Your task to perform on an android device: Search for seafood restaurants on Google Maps Image 0: 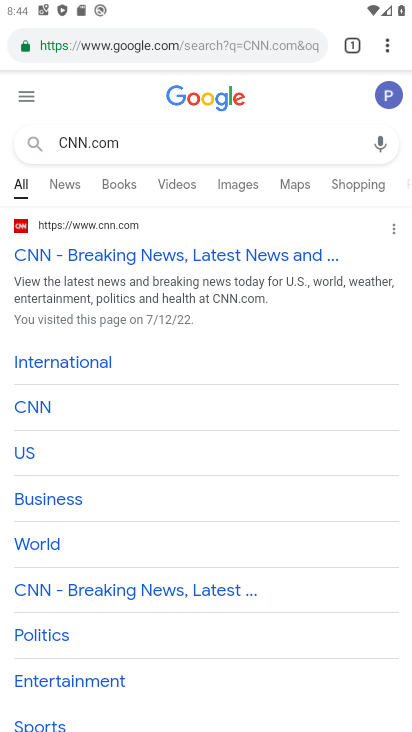
Step 0: press home button
Your task to perform on an android device: Search for seafood restaurants on Google Maps Image 1: 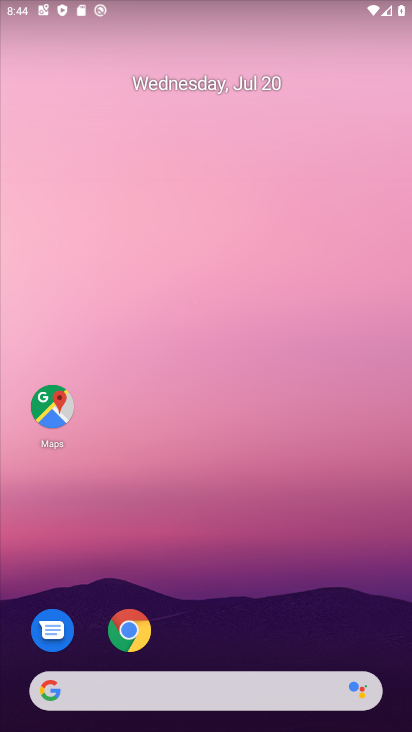
Step 1: click (54, 405)
Your task to perform on an android device: Search for seafood restaurants on Google Maps Image 2: 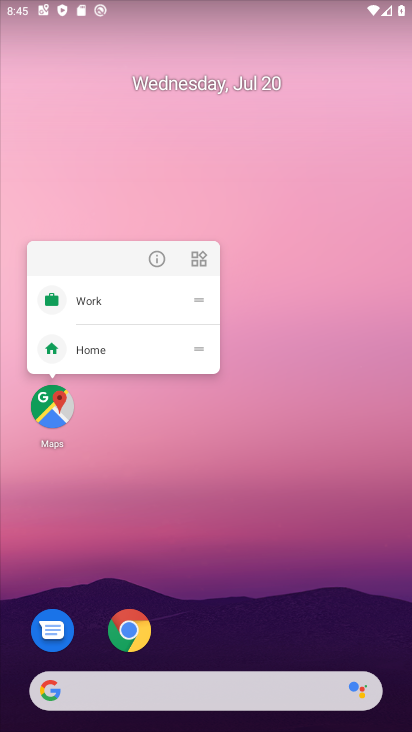
Step 2: click (50, 413)
Your task to perform on an android device: Search for seafood restaurants on Google Maps Image 3: 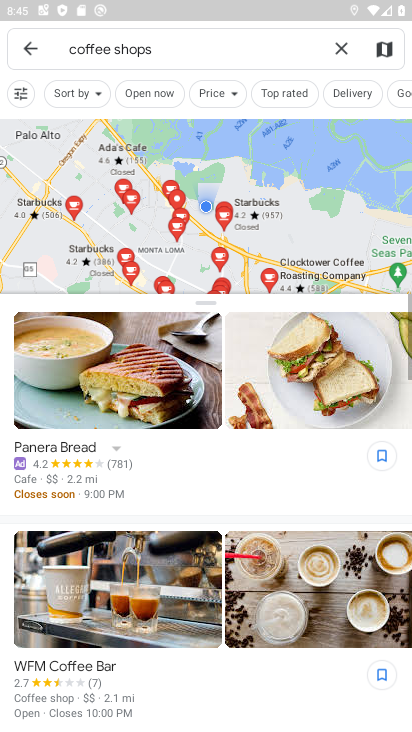
Step 3: click (332, 51)
Your task to perform on an android device: Search for seafood restaurants on Google Maps Image 4: 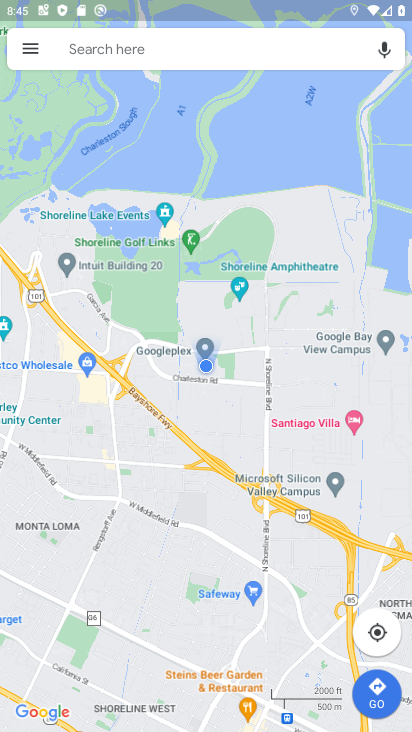
Step 4: click (106, 50)
Your task to perform on an android device: Search for seafood restaurants on Google Maps Image 5: 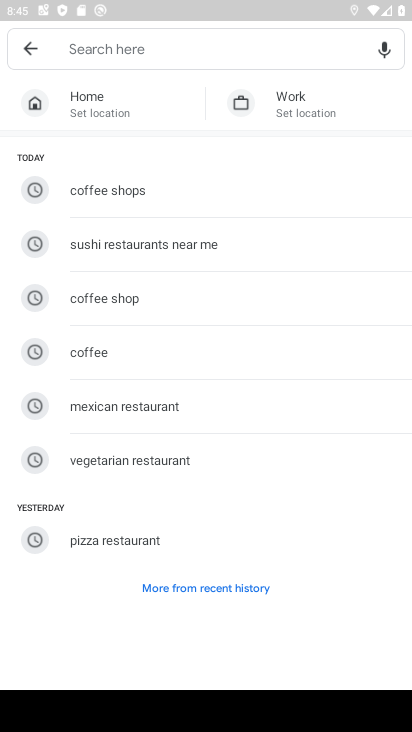
Step 5: type "seafood restaurants"
Your task to perform on an android device: Search for seafood restaurants on Google Maps Image 6: 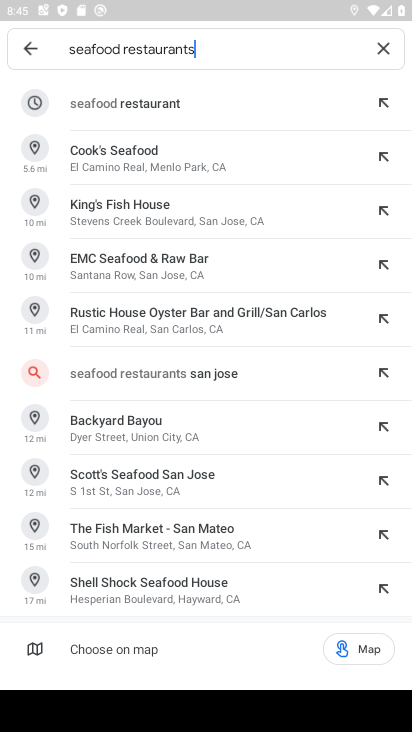
Step 6: click (138, 108)
Your task to perform on an android device: Search for seafood restaurants on Google Maps Image 7: 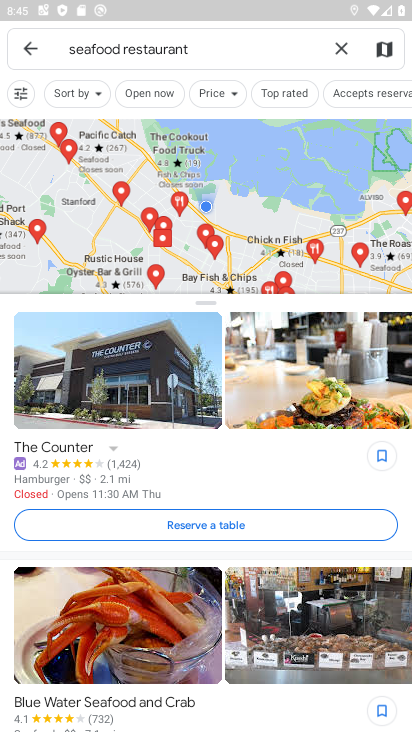
Step 7: task complete